Your task to perform on an android device: change notification settings in the gmail app Image 0: 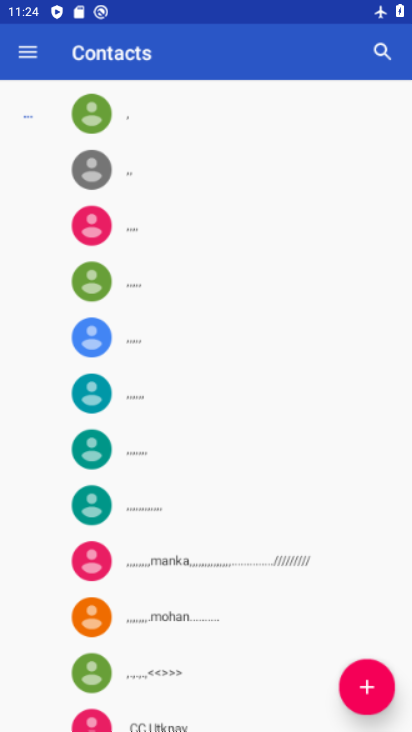
Step 0: drag from (314, 533) to (325, 172)
Your task to perform on an android device: change notification settings in the gmail app Image 1: 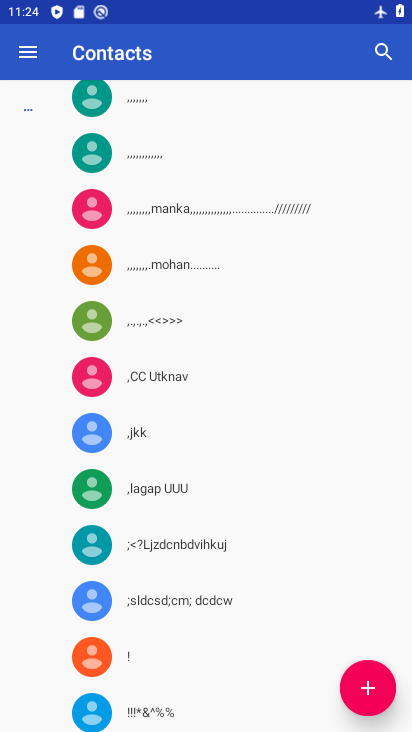
Step 1: press home button
Your task to perform on an android device: change notification settings in the gmail app Image 2: 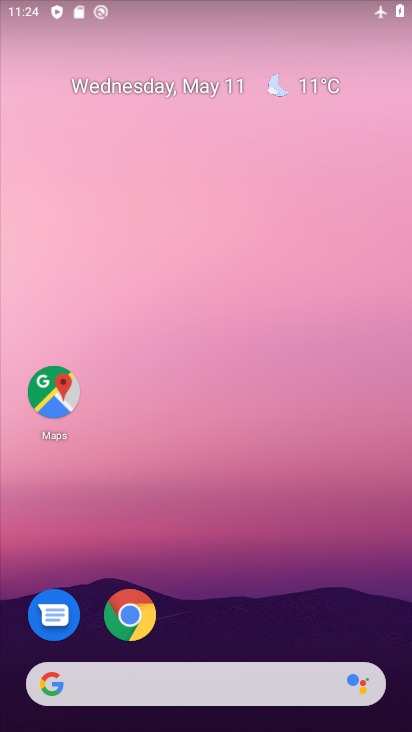
Step 2: drag from (322, 560) to (277, 100)
Your task to perform on an android device: change notification settings in the gmail app Image 3: 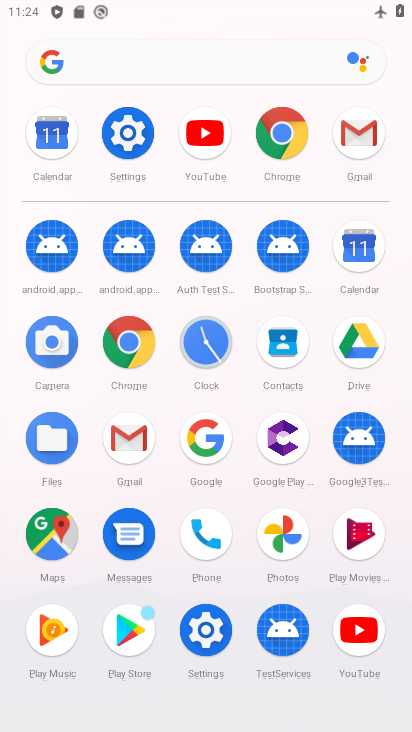
Step 3: click (357, 137)
Your task to perform on an android device: change notification settings in the gmail app Image 4: 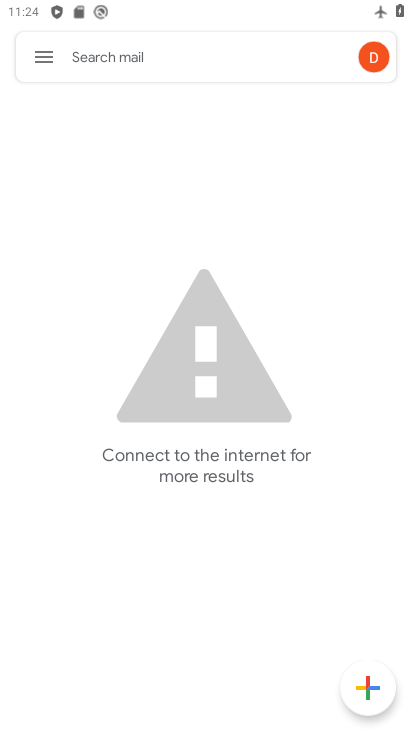
Step 4: click (49, 77)
Your task to perform on an android device: change notification settings in the gmail app Image 5: 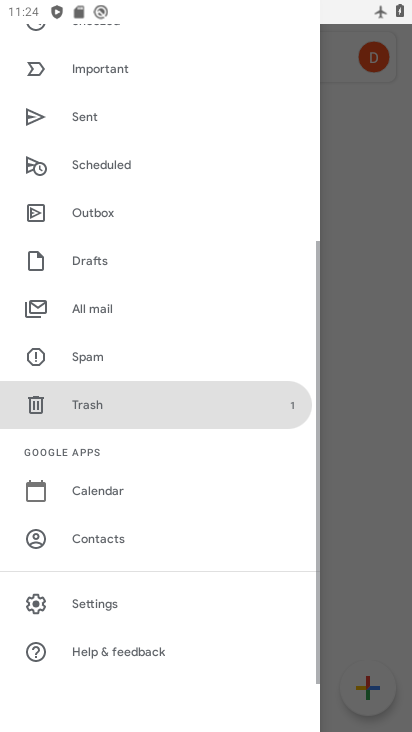
Step 5: drag from (168, 601) to (239, 115)
Your task to perform on an android device: change notification settings in the gmail app Image 6: 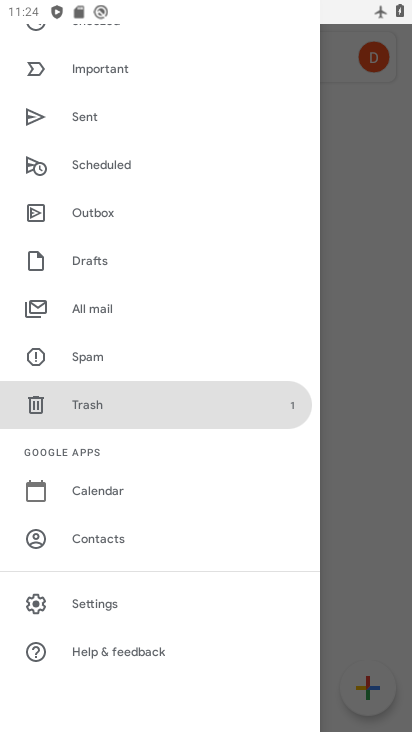
Step 6: click (91, 601)
Your task to perform on an android device: change notification settings in the gmail app Image 7: 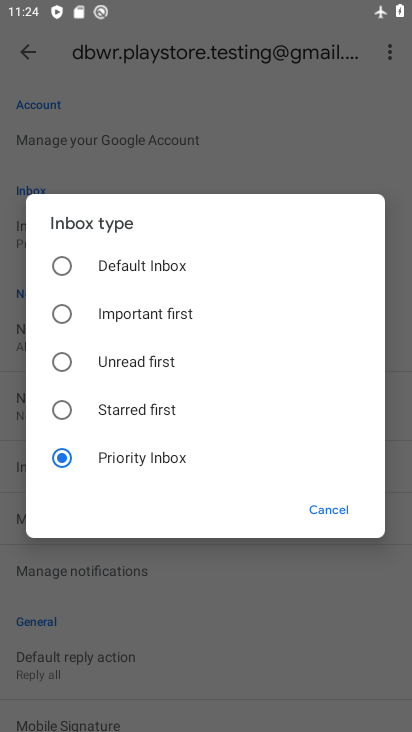
Step 7: click (330, 498)
Your task to perform on an android device: change notification settings in the gmail app Image 8: 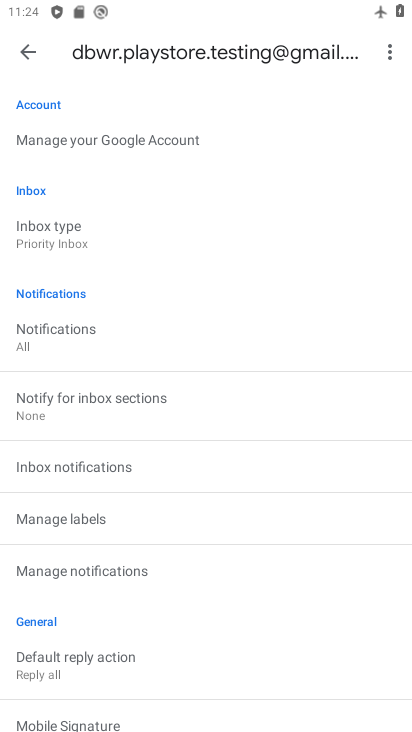
Step 8: drag from (194, 568) to (266, 230)
Your task to perform on an android device: change notification settings in the gmail app Image 9: 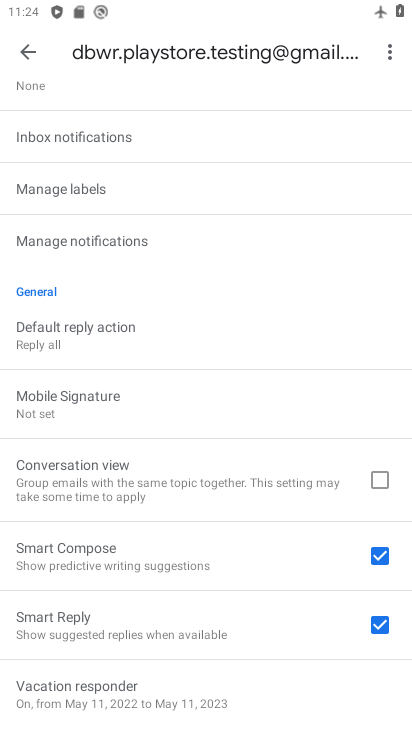
Step 9: drag from (143, 186) to (180, 459)
Your task to perform on an android device: change notification settings in the gmail app Image 10: 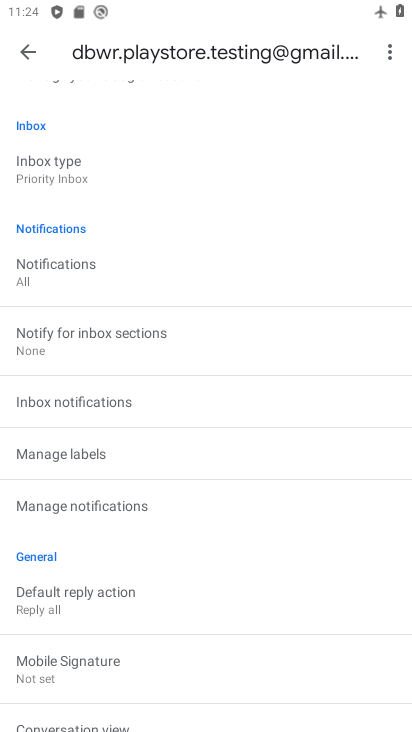
Step 10: click (106, 509)
Your task to perform on an android device: change notification settings in the gmail app Image 11: 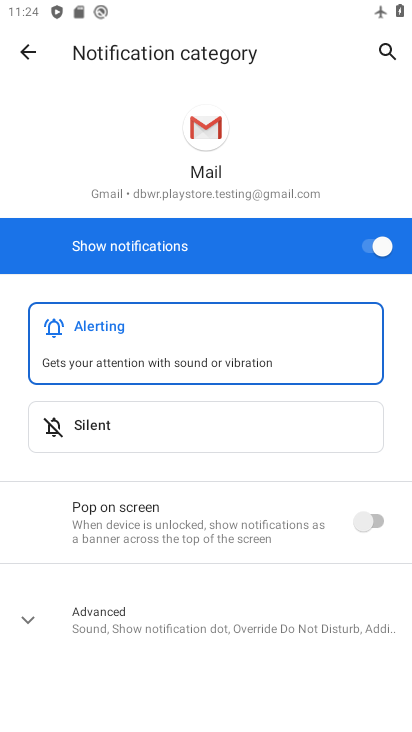
Step 11: click (373, 249)
Your task to perform on an android device: change notification settings in the gmail app Image 12: 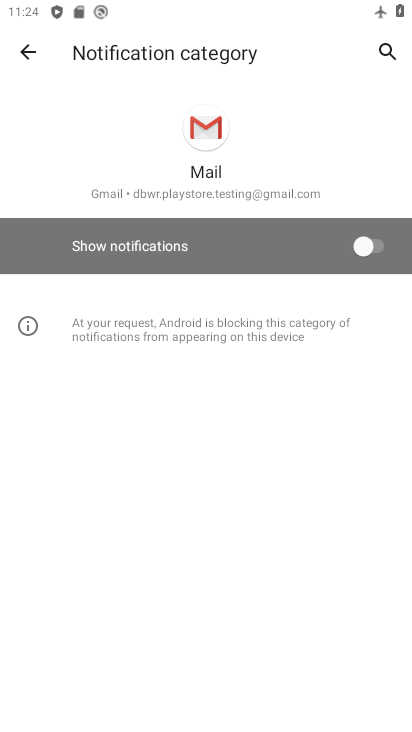
Step 12: task complete